Your task to perform on an android device: Open Google Chrome and click the shortcut for Amazon.com Image 0: 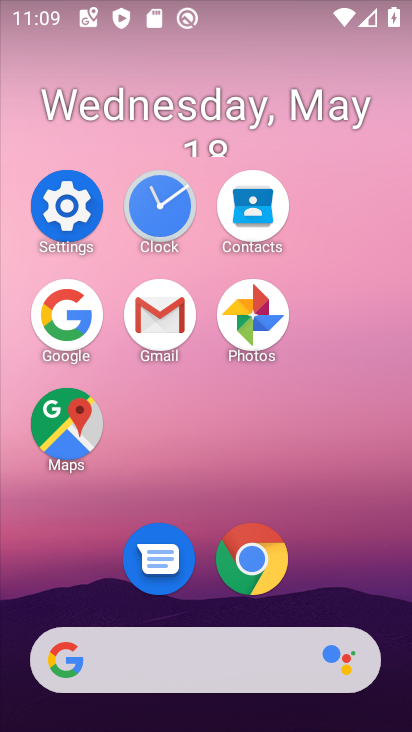
Step 0: click (248, 543)
Your task to perform on an android device: Open Google Chrome and click the shortcut for Amazon.com Image 1: 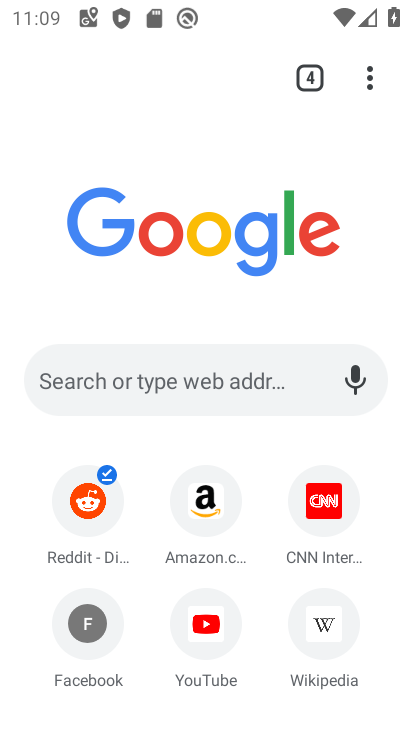
Step 1: click (330, 90)
Your task to perform on an android device: Open Google Chrome and click the shortcut for Amazon.com Image 2: 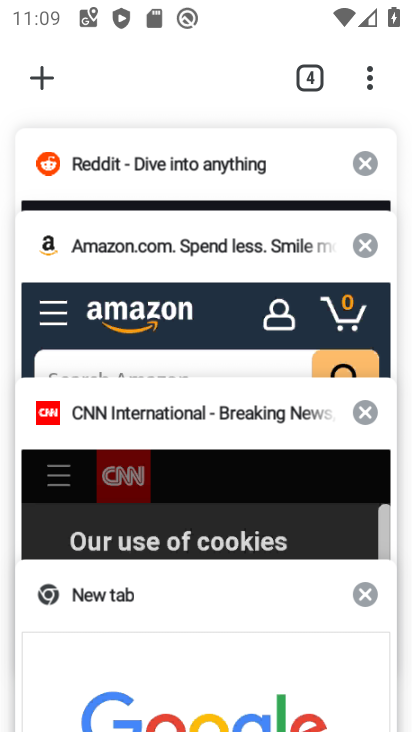
Step 2: click (186, 241)
Your task to perform on an android device: Open Google Chrome and click the shortcut for Amazon.com Image 3: 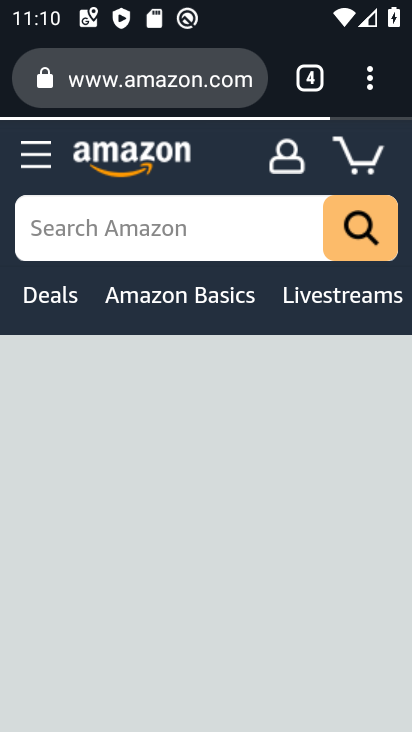
Step 3: click (372, 86)
Your task to perform on an android device: Open Google Chrome and click the shortcut for Amazon.com Image 4: 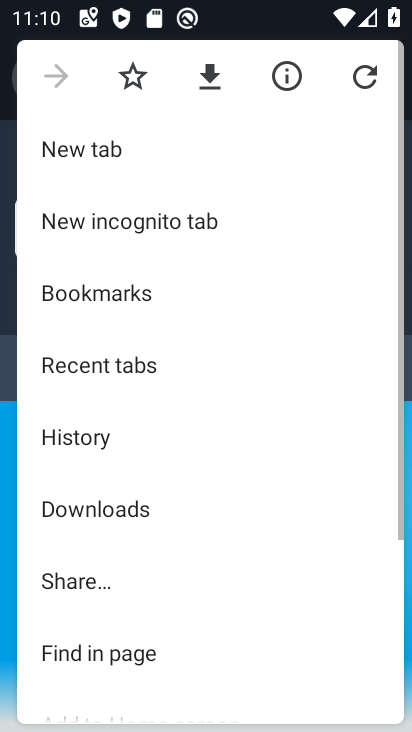
Step 4: drag from (170, 504) to (244, 198)
Your task to perform on an android device: Open Google Chrome and click the shortcut for Amazon.com Image 5: 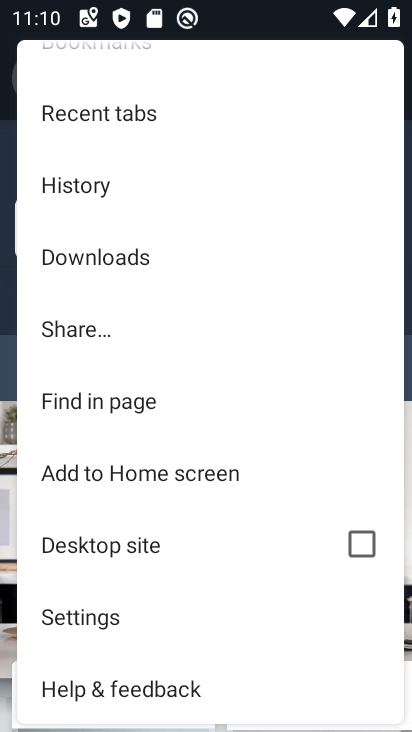
Step 5: drag from (247, 560) to (286, 256)
Your task to perform on an android device: Open Google Chrome and click the shortcut for Amazon.com Image 6: 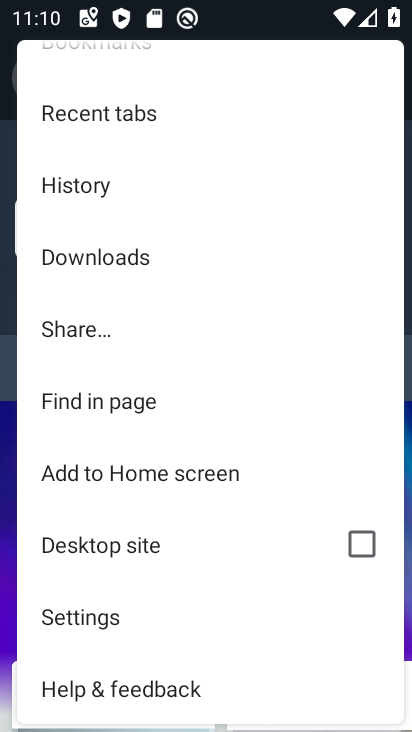
Step 6: click (208, 488)
Your task to perform on an android device: Open Google Chrome and click the shortcut for Amazon.com Image 7: 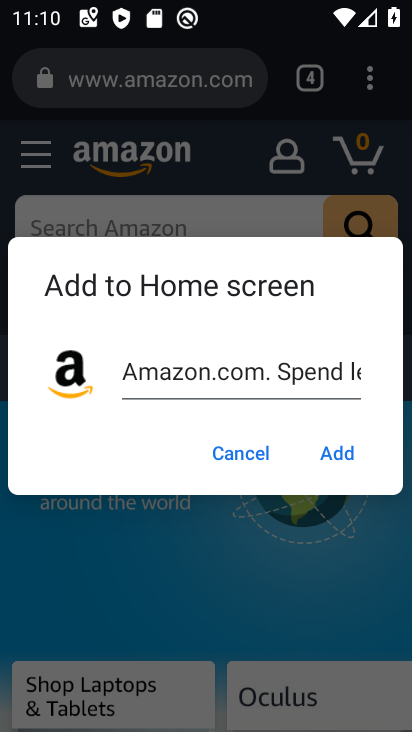
Step 7: click (339, 464)
Your task to perform on an android device: Open Google Chrome and click the shortcut for Amazon.com Image 8: 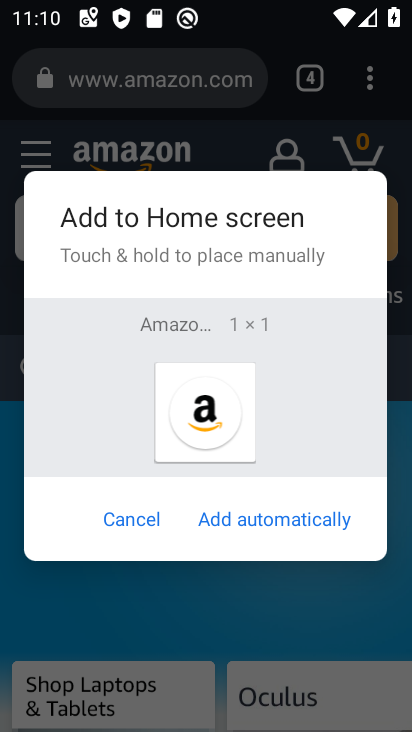
Step 8: task complete